Your task to perform on an android device: empty trash in google photos Image 0: 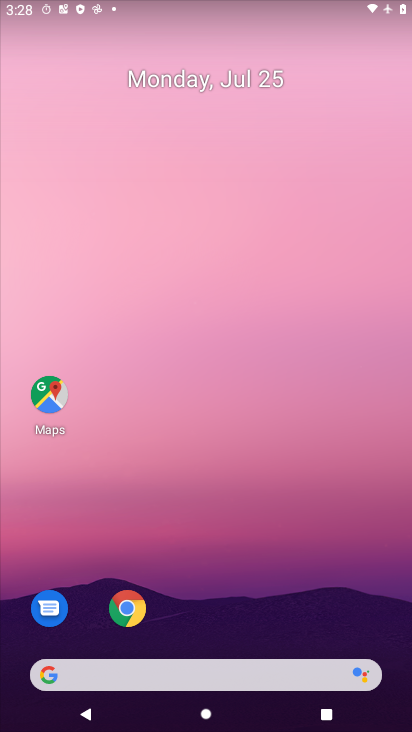
Step 0: drag from (243, 653) to (297, 158)
Your task to perform on an android device: empty trash in google photos Image 1: 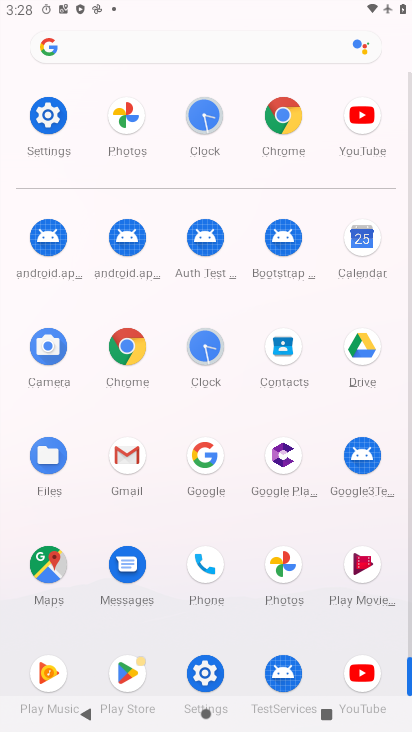
Step 1: drag from (237, 525) to (287, 317)
Your task to perform on an android device: empty trash in google photos Image 2: 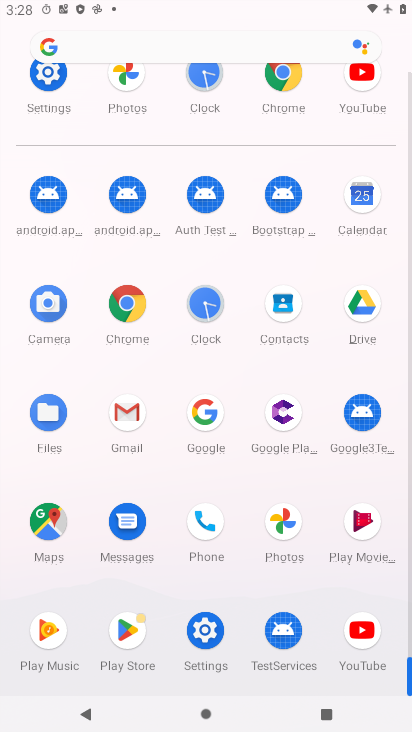
Step 2: click (283, 534)
Your task to perform on an android device: empty trash in google photos Image 3: 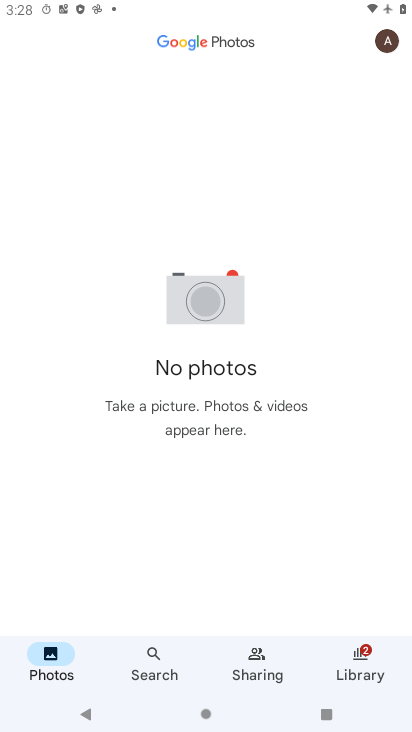
Step 3: click (385, 43)
Your task to perform on an android device: empty trash in google photos Image 4: 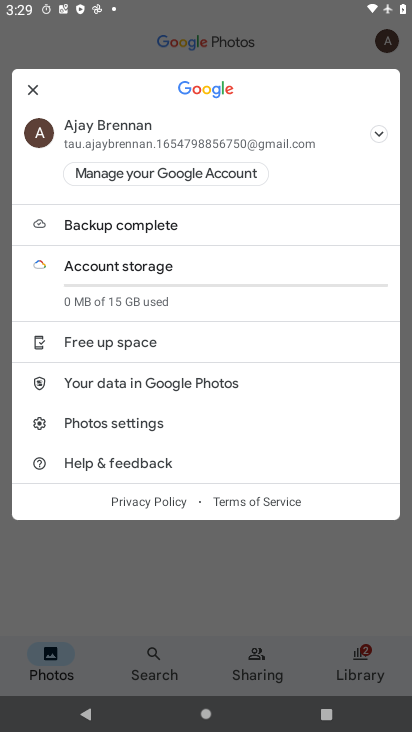
Step 4: task complete